Your task to perform on an android device: Go to Google maps Image 0: 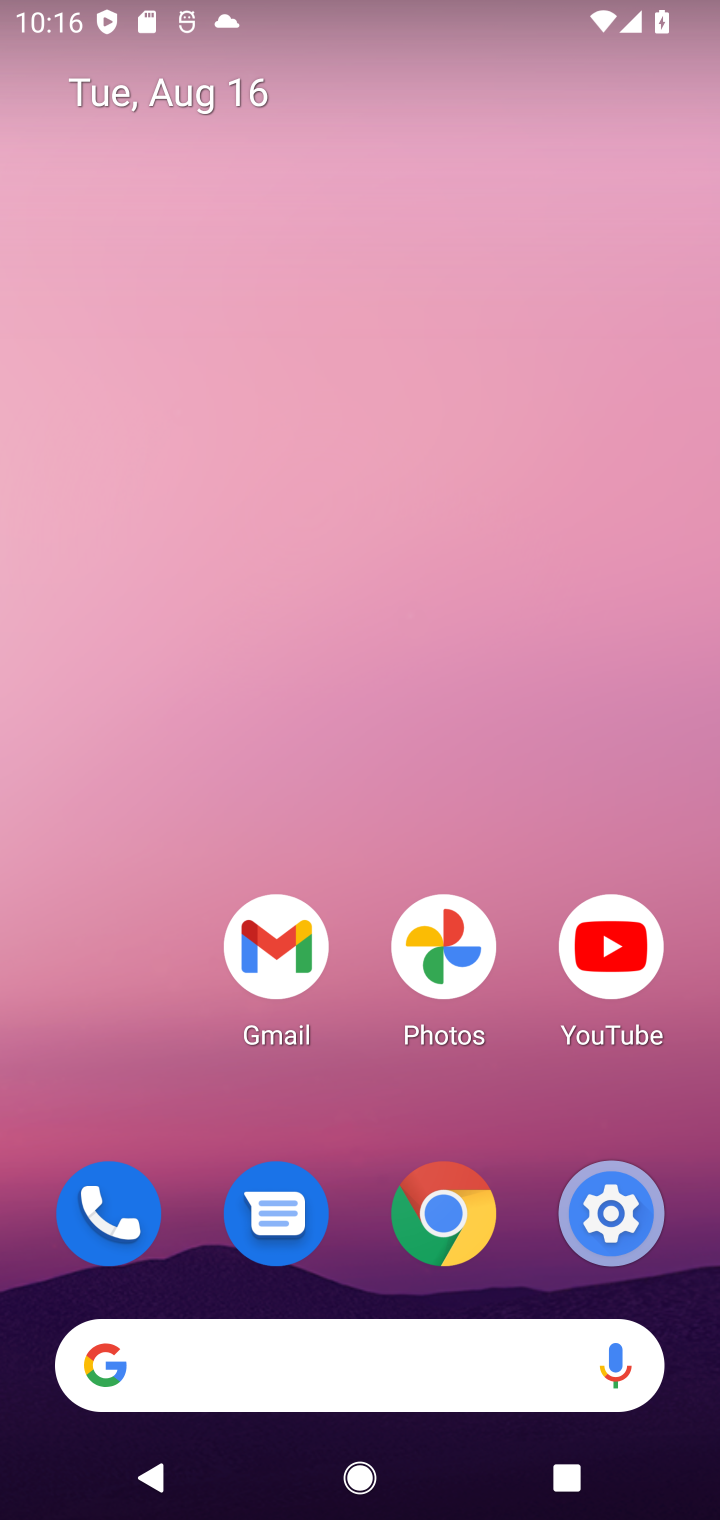
Step 0: drag from (363, 870) to (387, 361)
Your task to perform on an android device: Go to Google maps Image 1: 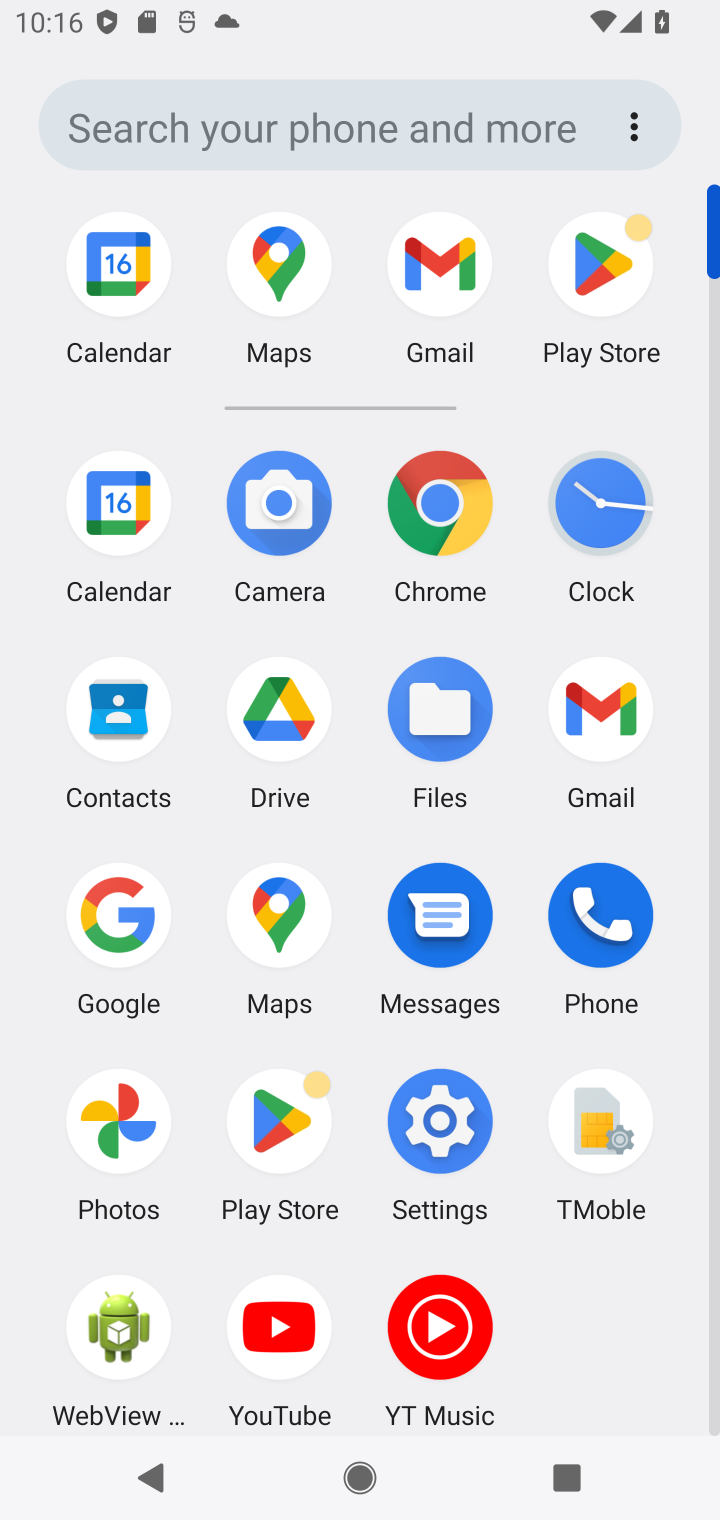
Step 1: click (261, 923)
Your task to perform on an android device: Go to Google maps Image 2: 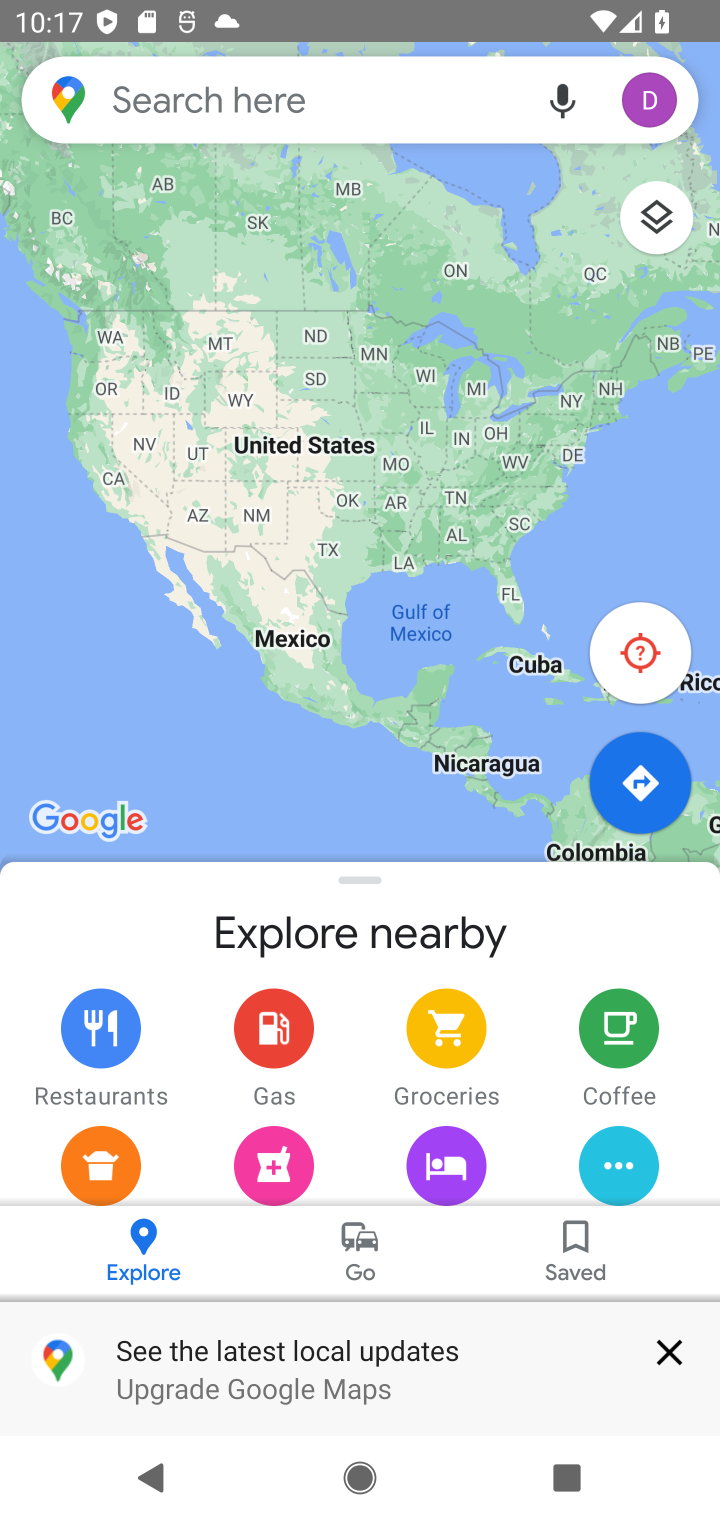
Step 2: task complete